Your task to perform on an android device: Open settings Image 0: 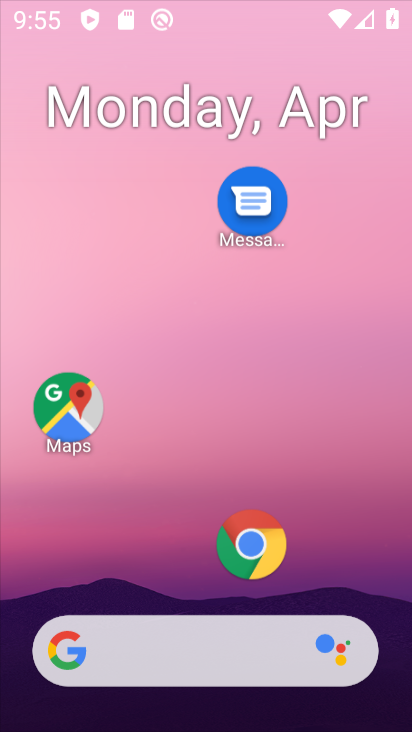
Step 0: press home button
Your task to perform on an android device: Open settings Image 1: 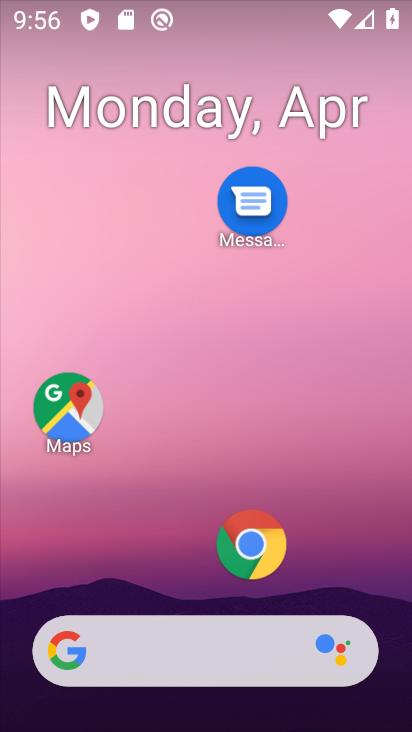
Step 1: drag from (199, 595) to (211, 68)
Your task to perform on an android device: Open settings Image 2: 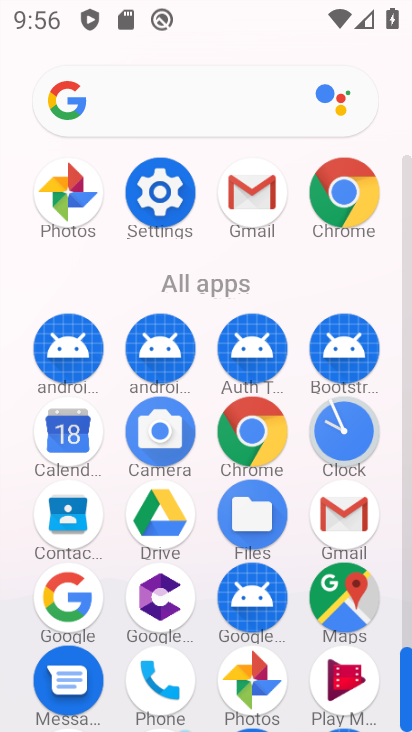
Step 2: click (160, 182)
Your task to perform on an android device: Open settings Image 3: 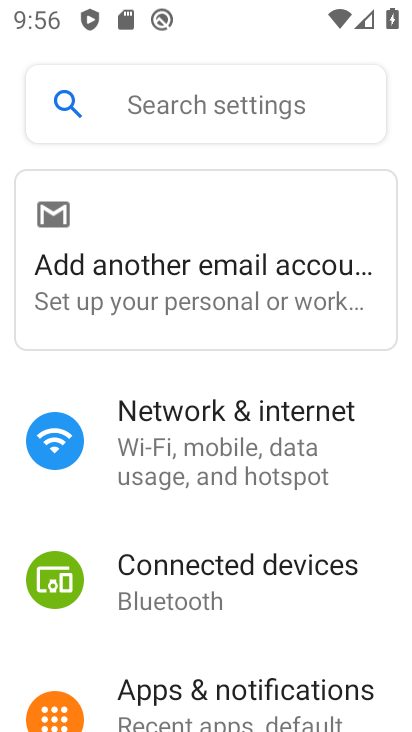
Step 3: task complete